Your task to perform on an android device: delete a single message in the gmail app Image 0: 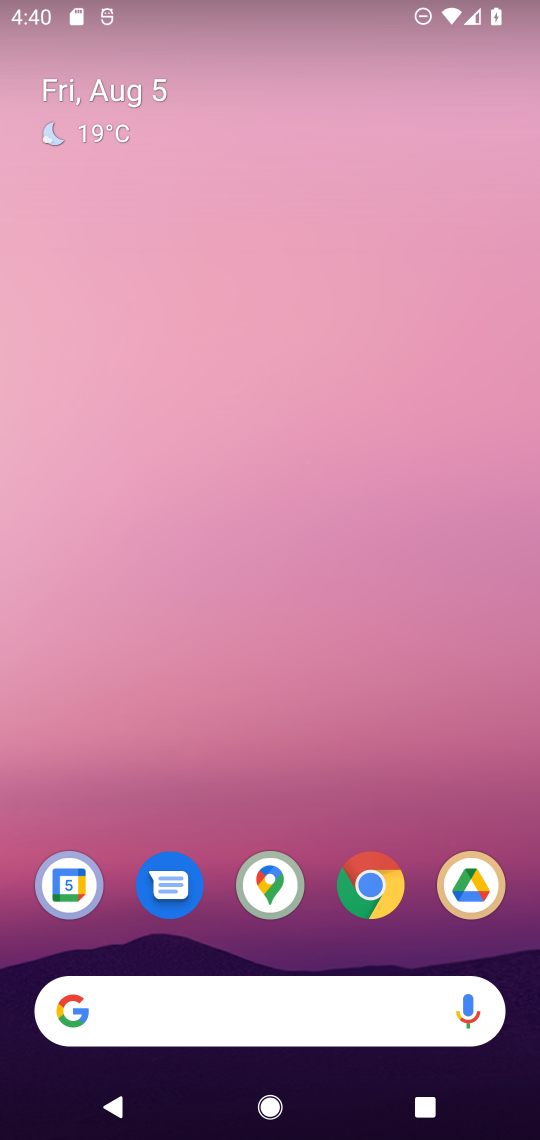
Step 0: drag from (341, 813) to (366, 155)
Your task to perform on an android device: delete a single message in the gmail app Image 1: 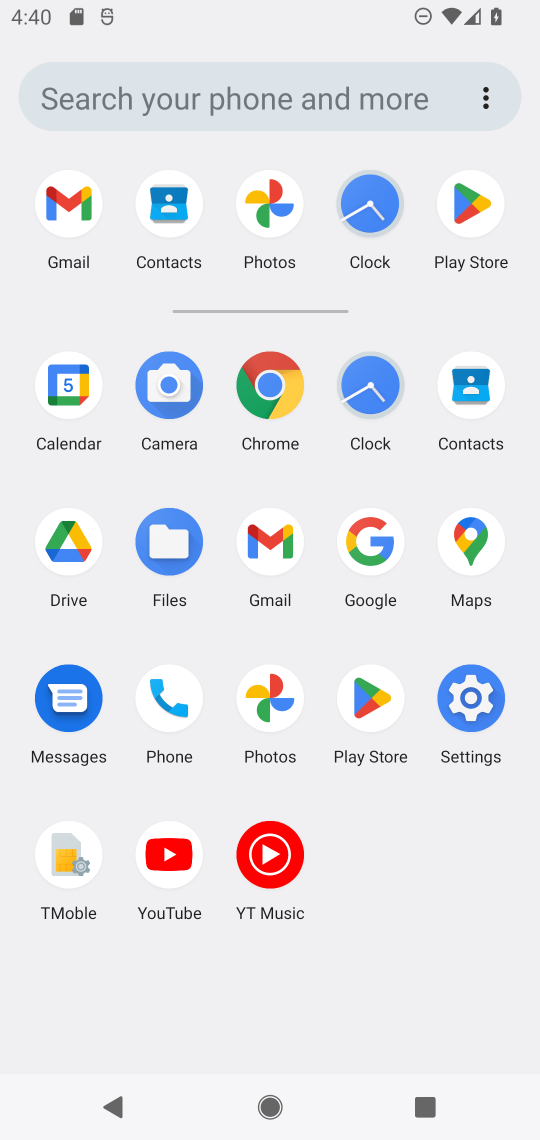
Step 1: click (280, 530)
Your task to perform on an android device: delete a single message in the gmail app Image 2: 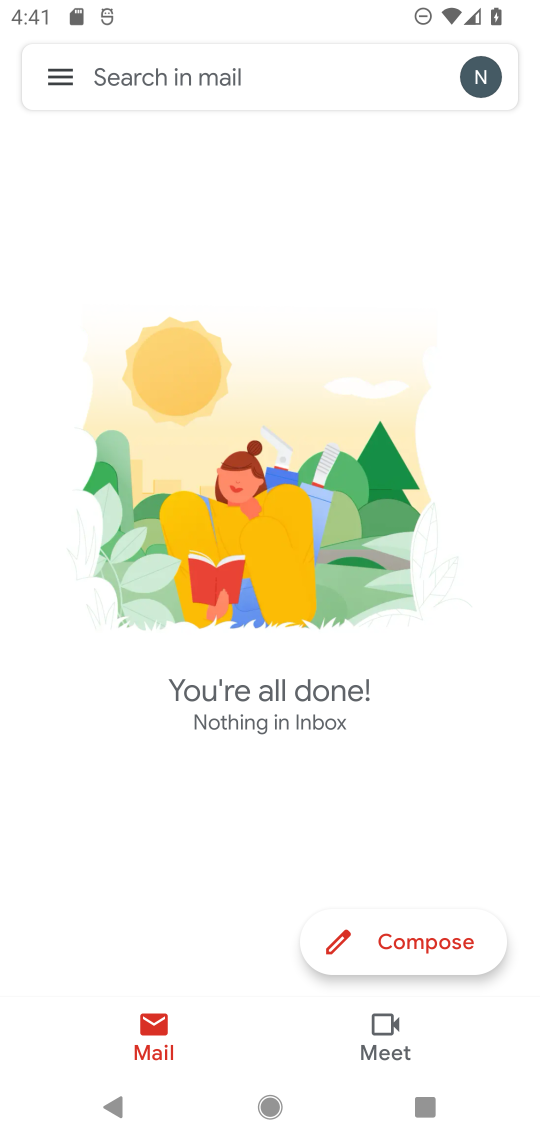
Step 2: task complete